Your task to perform on an android device: Go to sound settings Image 0: 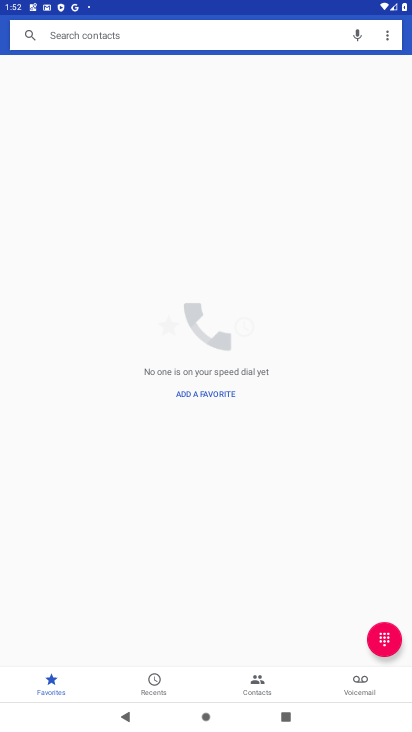
Step 0: press home button
Your task to perform on an android device: Go to sound settings Image 1: 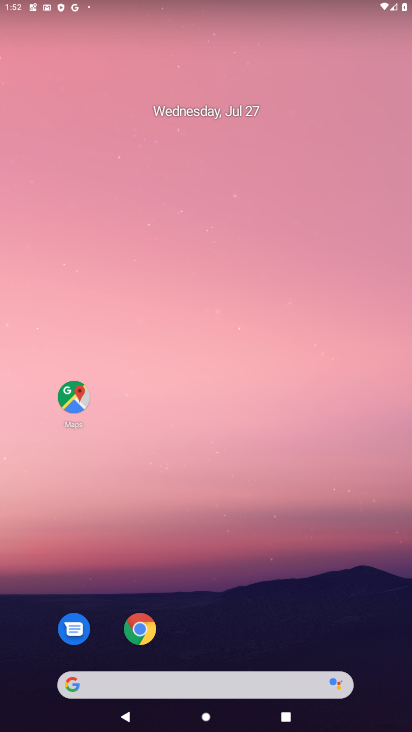
Step 1: drag from (285, 646) to (216, 28)
Your task to perform on an android device: Go to sound settings Image 2: 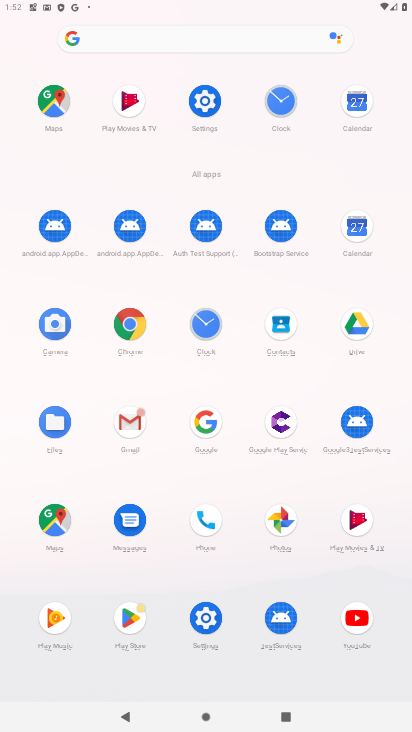
Step 2: click (206, 98)
Your task to perform on an android device: Go to sound settings Image 3: 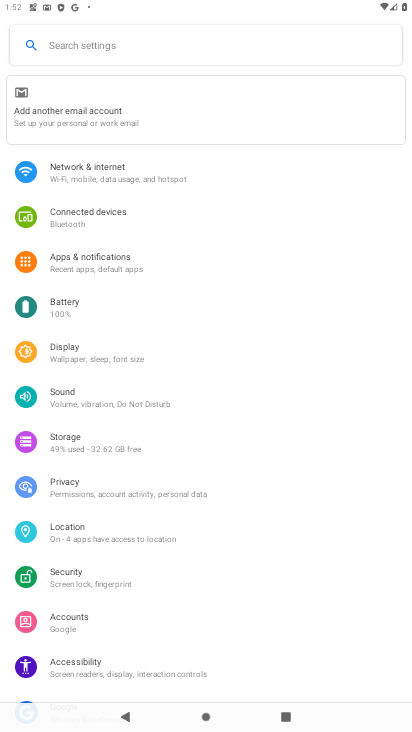
Step 3: click (128, 401)
Your task to perform on an android device: Go to sound settings Image 4: 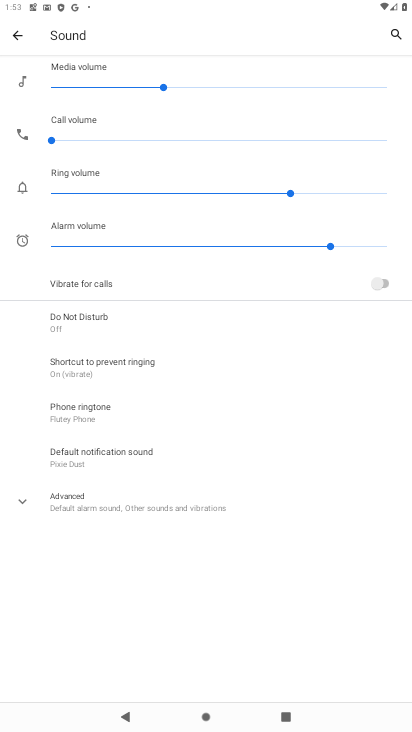
Step 4: task complete